Your task to perform on an android device: change the clock display to digital Image 0: 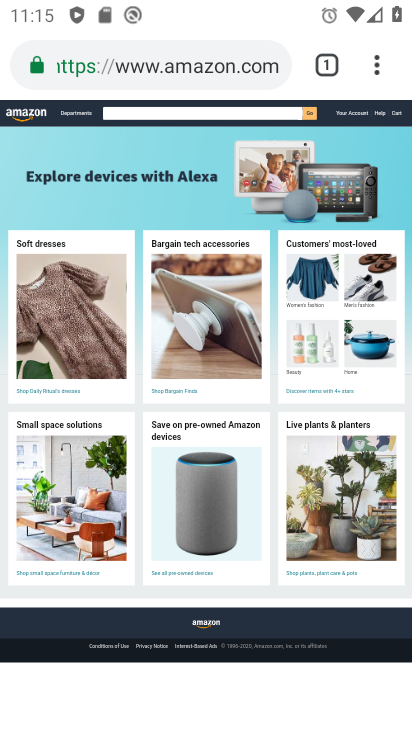
Step 0: press home button
Your task to perform on an android device: change the clock display to digital Image 1: 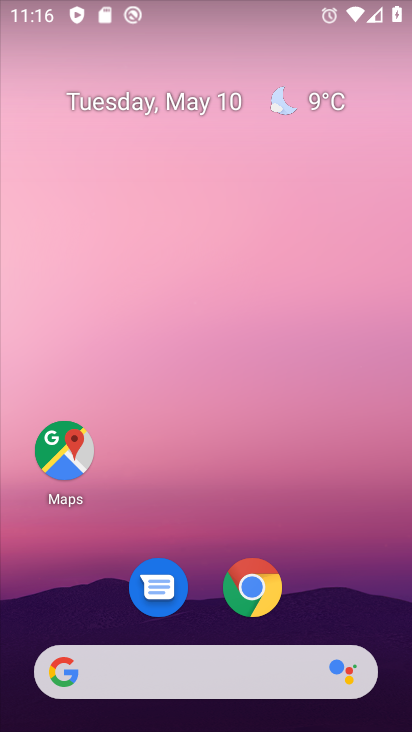
Step 1: drag from (391, 617) to (351, 46)
Your task to perform on an android device: change the clock display to digital Image 2: 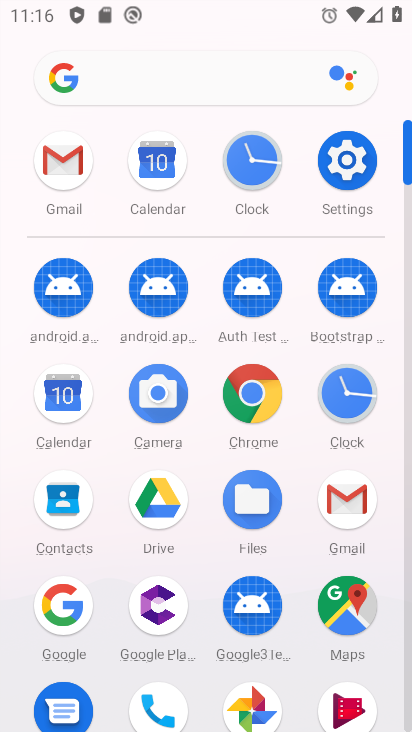
Step 2: click (251, 161)
Your task to perform on an android device: change the clock display to digital Image 3: 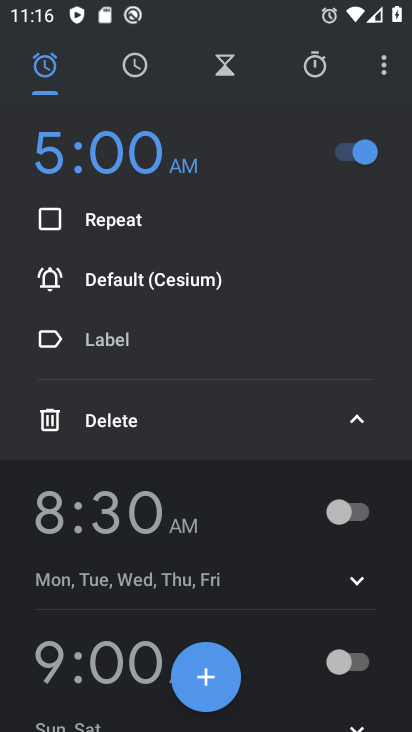
Step 3: click (385, 70)
Your task to perform on an android device: change the clock display to digital Image 4: 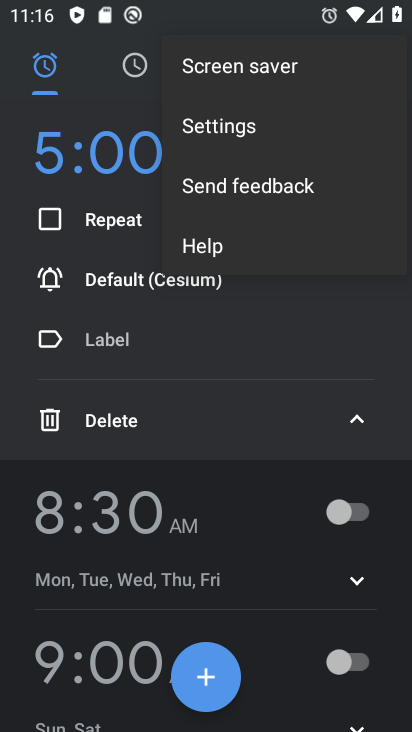
Step 4: click (205, 131)
Your task to perform on an android device: change the clock display to digital Image 5: 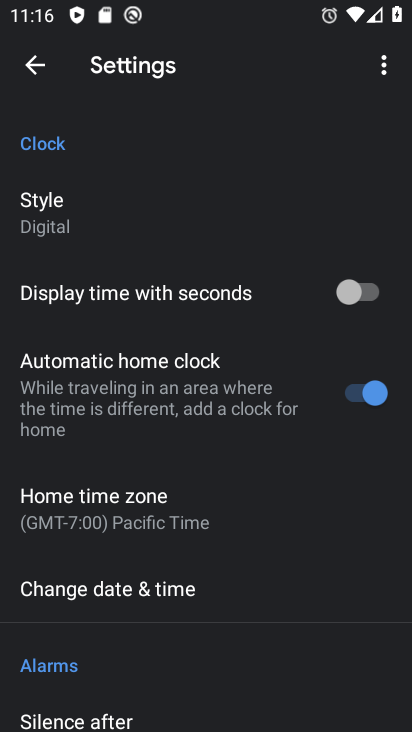
Step 5: task complete